Your task to perform on an android device: turn off notifications settings in the gmail app Image 0: 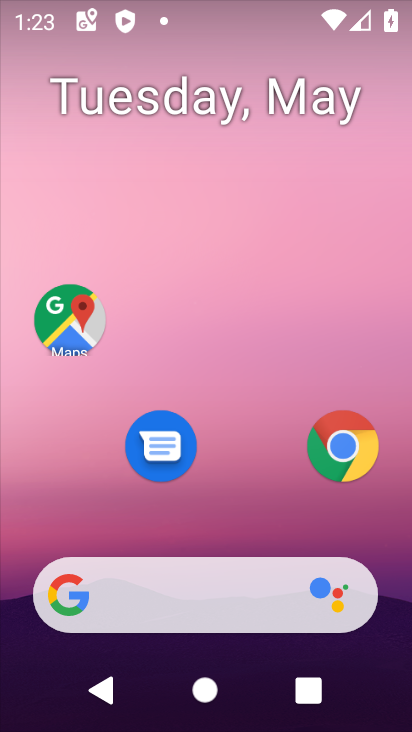
Step 0: drag from (239, 528) to (189, 0)
Your task to perform on an android device: turn off notifications settings in the gmail app Image 1: 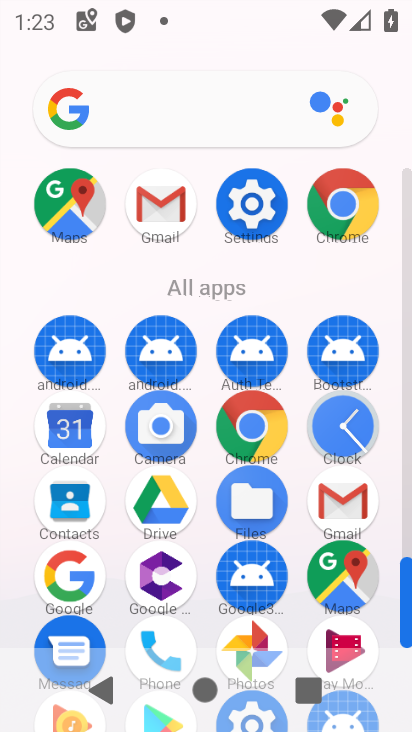
Step 1: click (328, 512)
Your task to perform on an android device: turn off notifications settings in the gmail app Image 2: 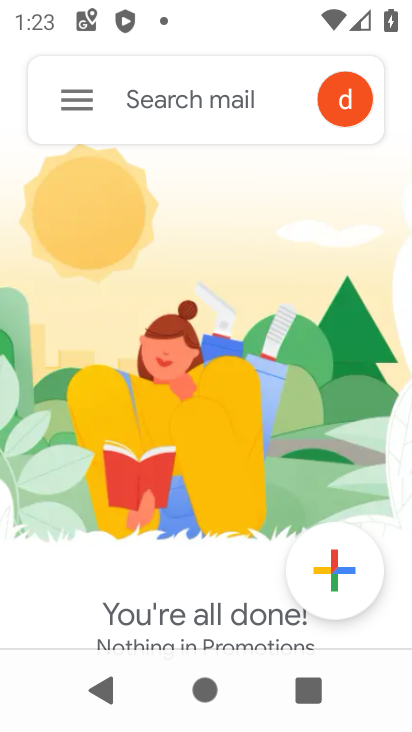
Step 2: click (85, 100)
Your task to perform on an android device: turn off notifications settings in the gmail app Image 3: 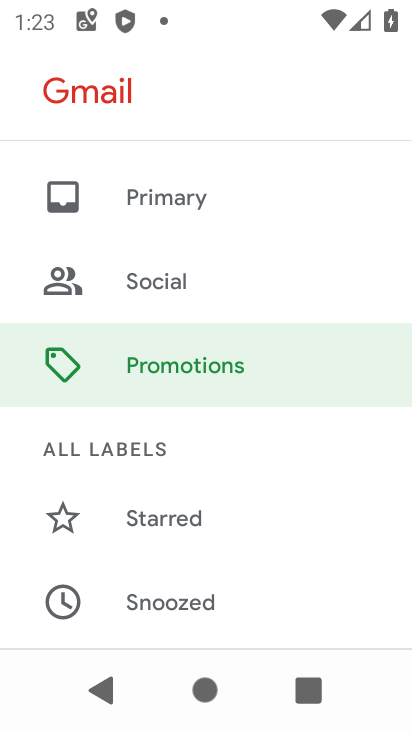
Step 3: drag from (198, 449) to (157, 30)
Your task to perform on an android device: turn off notifications settings in the gmail app Image 4: 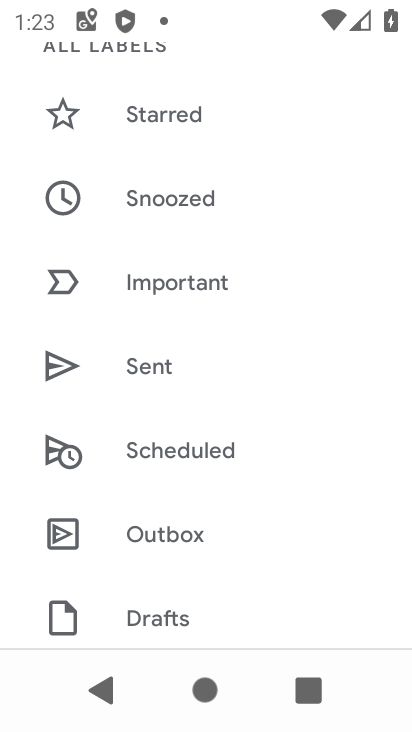
Step 4: drag from (239, 585) to (182, 128)
Your task to perform on an android device: turn off notifications settings in the gmail app Image 5: 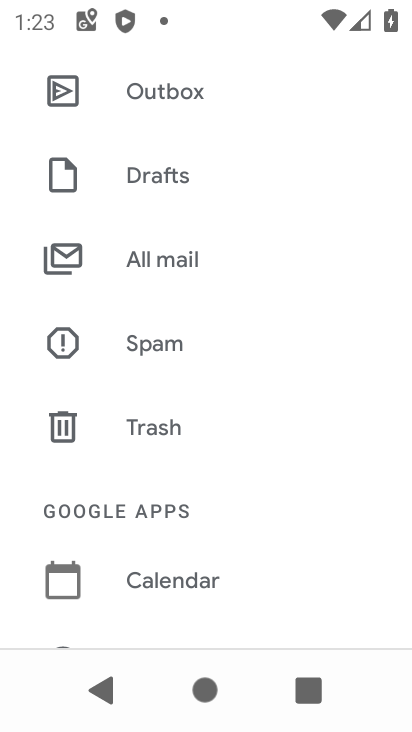
Step 5: drag from (192, 527) to (157, 121)
Your task to perform on an android device: turn off notifications settings in the gmail app Image 6: 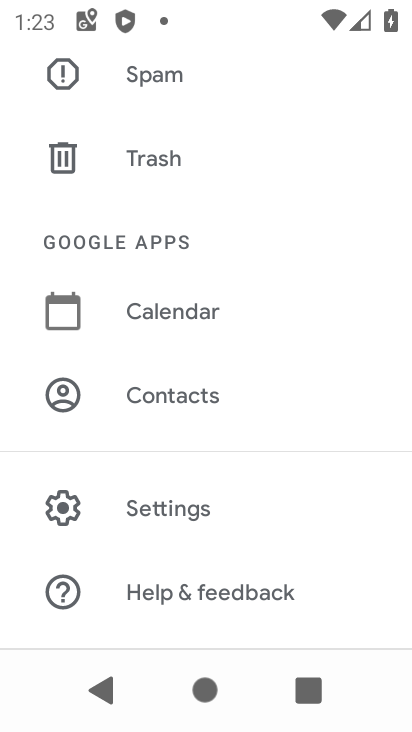
Step 6: click (213, 508)
Your task to perform on an android device: turn off notifications settings in the gmail app Image 7: 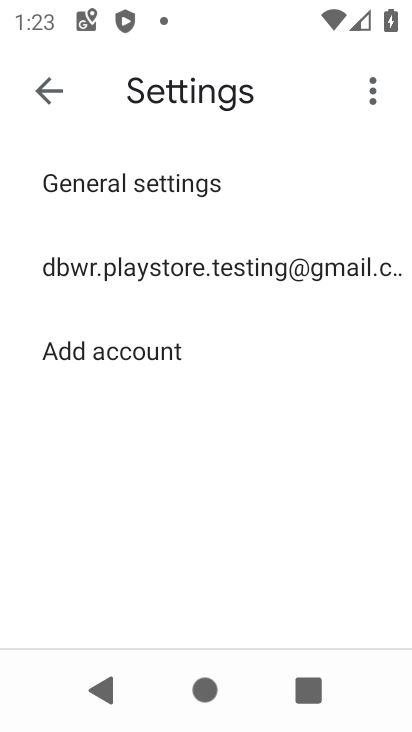
Step 7: click (89, 198)
Your task to perform on an android device: turn off notifications settings in the gmail app Image 8: 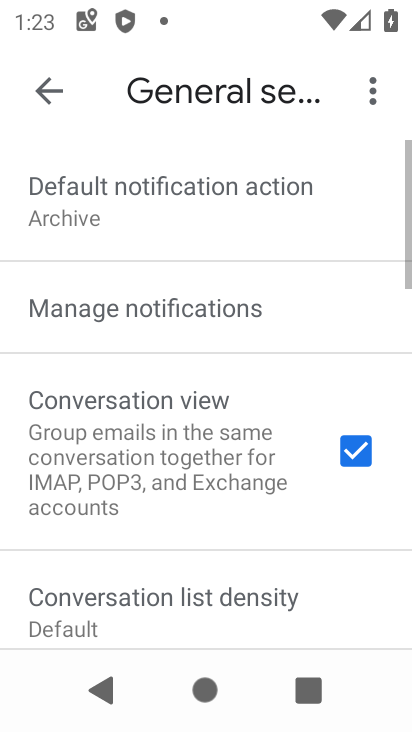
Step 8: click (140, 317)
Your task to perform on an android device: turn off notifications settings in the gmail app Image 9: 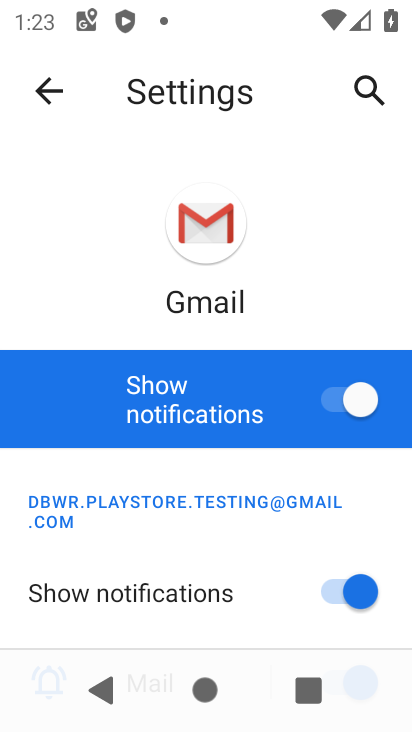
Step 9: drag from (278, 580) to (258, 422)
Your task to perform on an android device: turn off notifications settings in the gmail app Image 10: 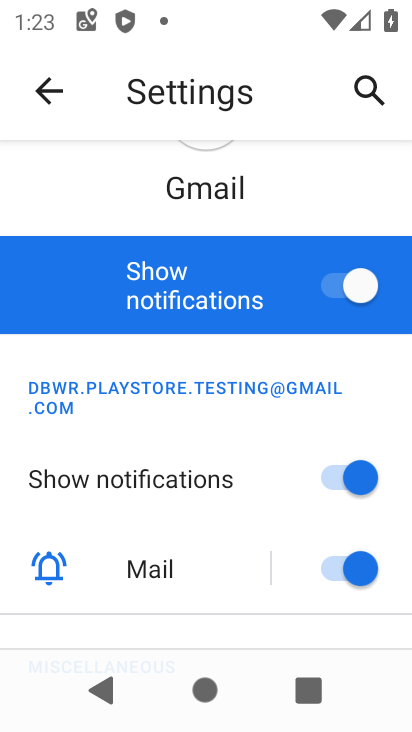
Step 10: click (350, 318)
Your task to perform on an android device: turn off notifications settings in the gmail app Image 11: 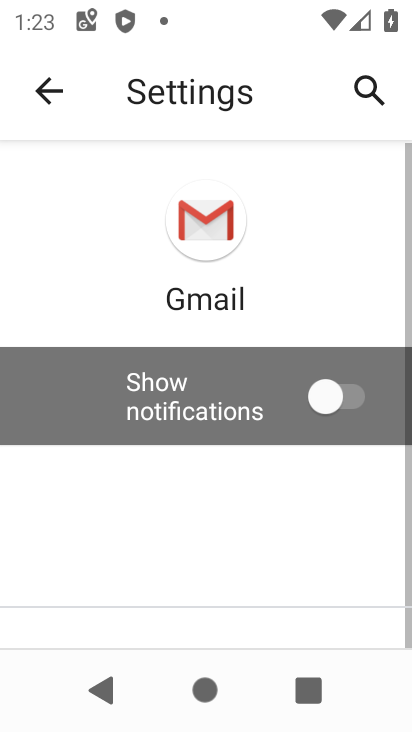
Step 11: task complete